Your task to perform on an android device: What's the weather going to be tomorrow? Image 0: 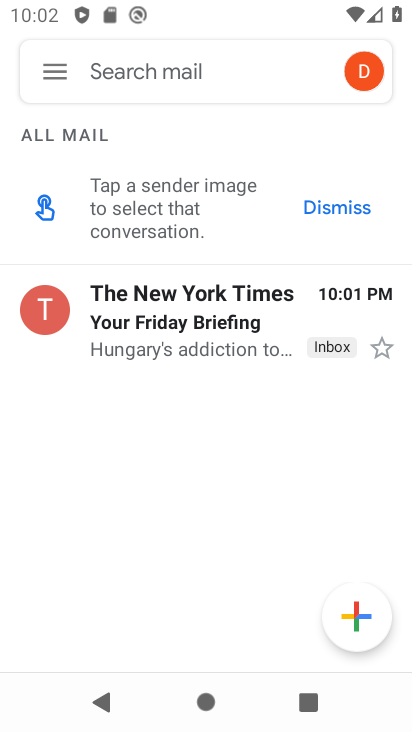
Step 0: press home button
Your task to perform on an android device: What's the weather going to be tomorrow? Image 1: 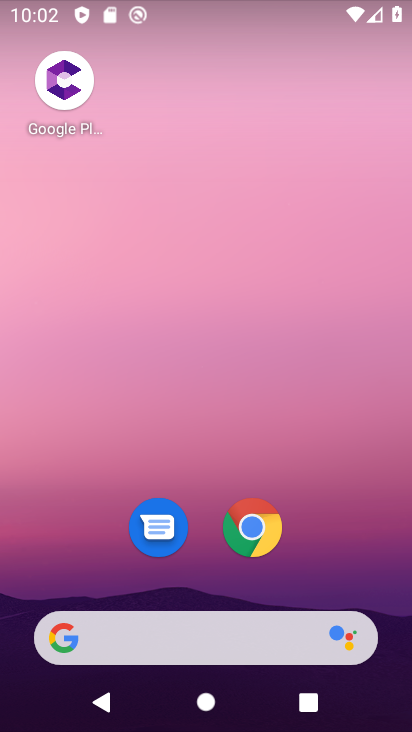
Step 1: drag from (161, 585) to (189, 273)
Your task to perform on an android device: What's the weather going to be tomorrow? Image 2: 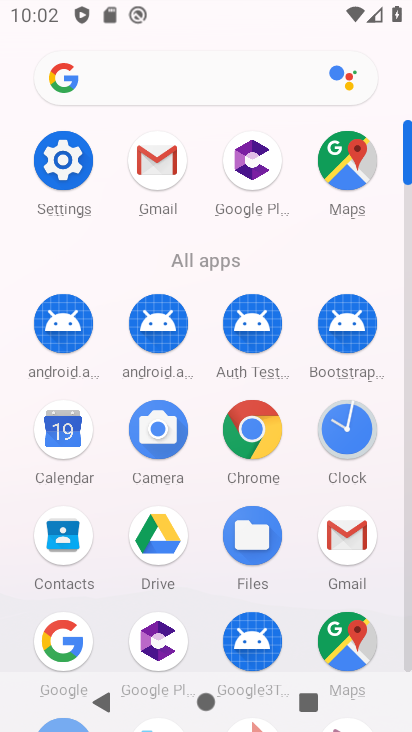
Step 2: click (66, 656)
Your task to perform on an android device: What's the weather going to be tomorrow? Image 3: 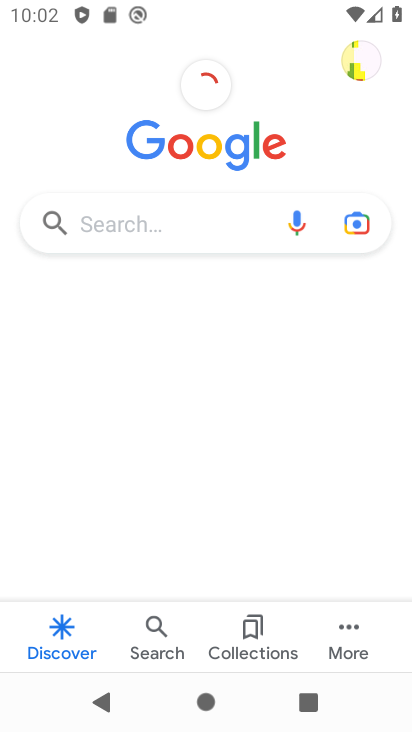
Step 3: click (157, 225)
Your task to perform on an android device: What's the weather going to be tomorrow? Image 4: 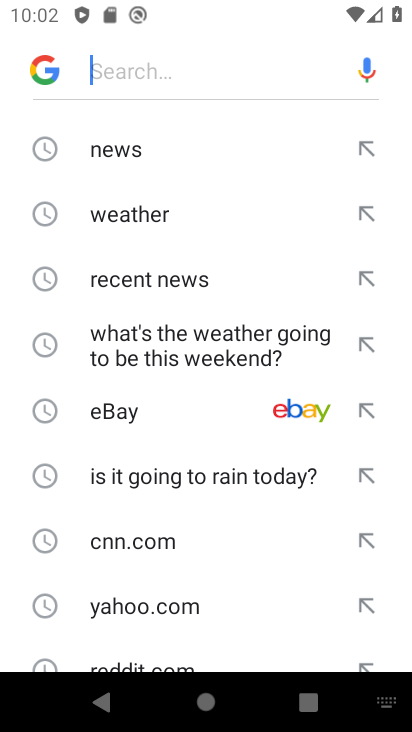
Step 4: click (129, 219)
Your task to perform on an android device: What's the weather going to be tomorrow? Image 5: 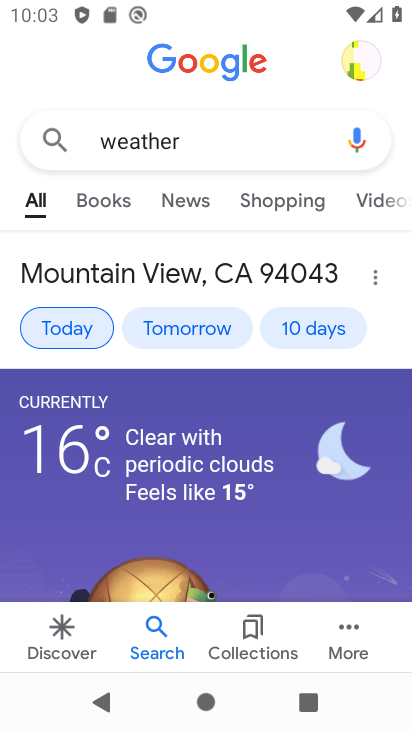
Step 5: click (173, 325)
Your task to perform on an android device: What's the weather going to be tomorrow? Image 6: 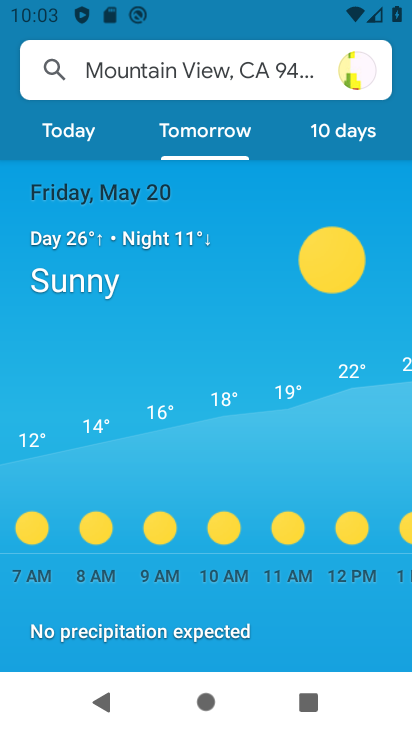
Step 6: task complete